Your task to perform on an android device: allow notifications from all sites in the chrome app Image 0: 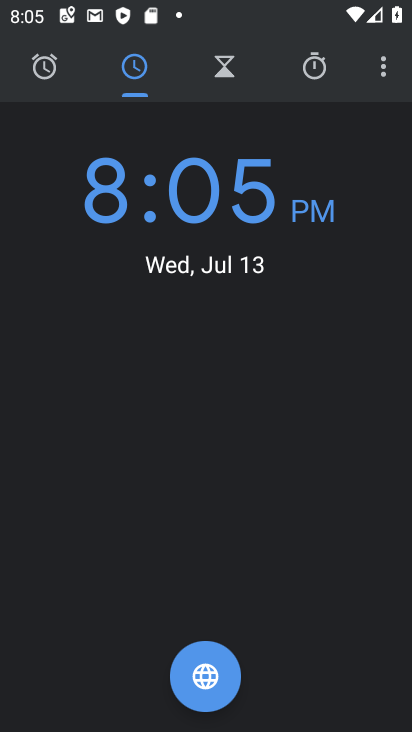
Step 0: press home button
Your task to perform on an android device: allow notifications from all sites in the chrome app Image 1: 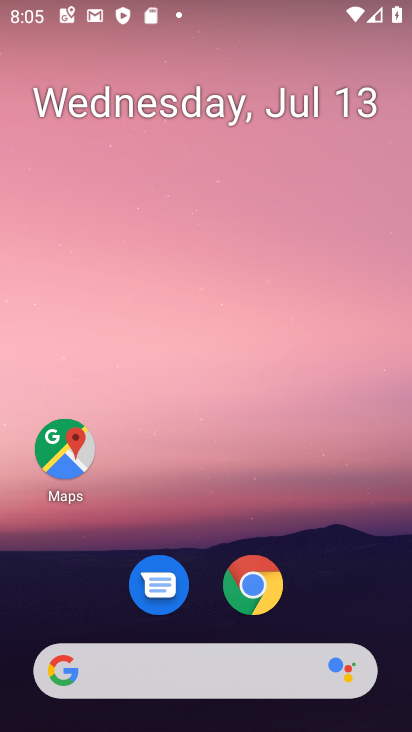
Step 1: click (249, 586)
Your task to perform on an android device: allow notifications from all sites in the chrome app Image 2: 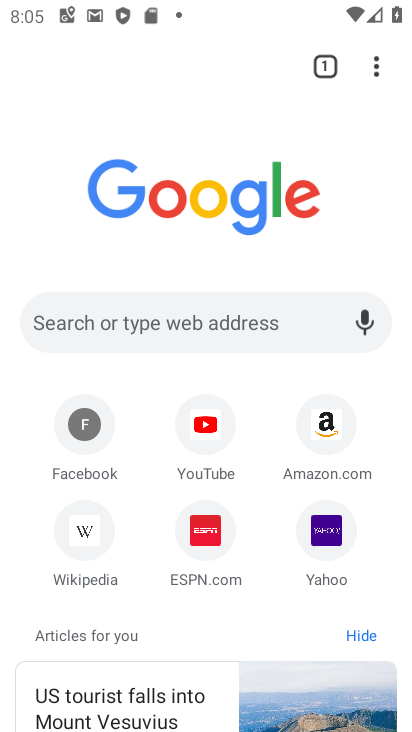
Step 2: click (376, 60)
Your task to perform on an android device: allow notifications from all sites in the chrome app Image 3: 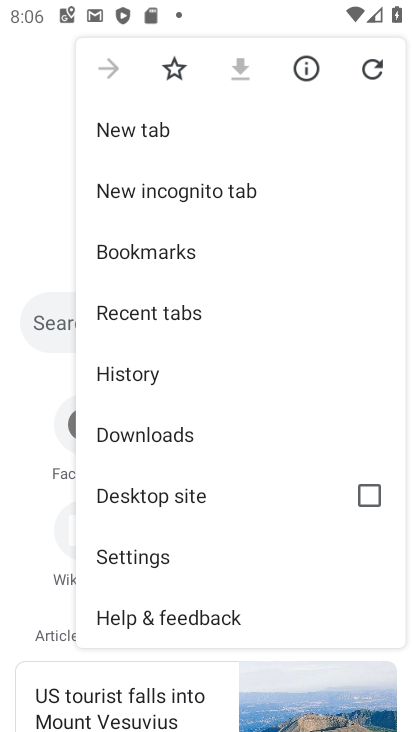
Step 3: click (139, 558)
Your task to perform on an android device: allow notifications from all sites in the chrome app Image 4: 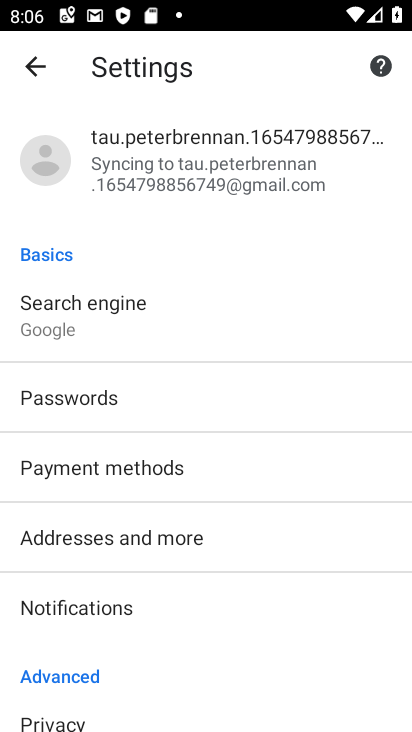
Step 4: click (125, 611)
Your task to perform on an android device: allow notifications from all sites in the chrome app Image 5: 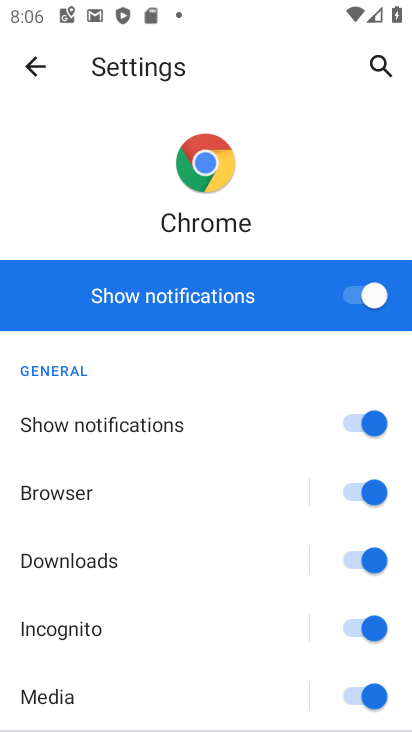
Step 5: task complete